Your task to perform on an android device: Open network settings Image 0: 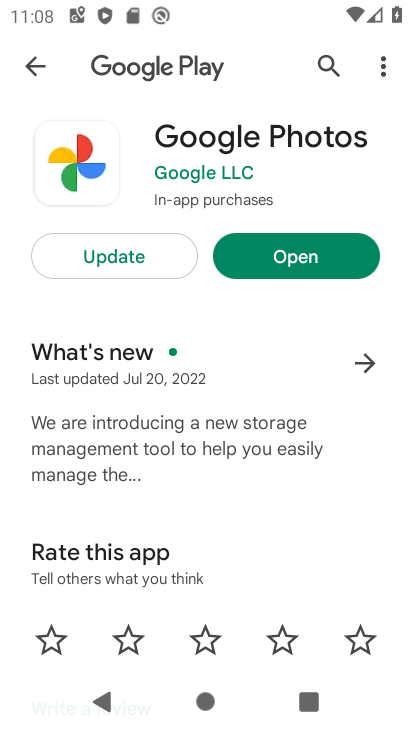
Step 0: press home button
Your task to perform on an android device: Open network settings Image 1: 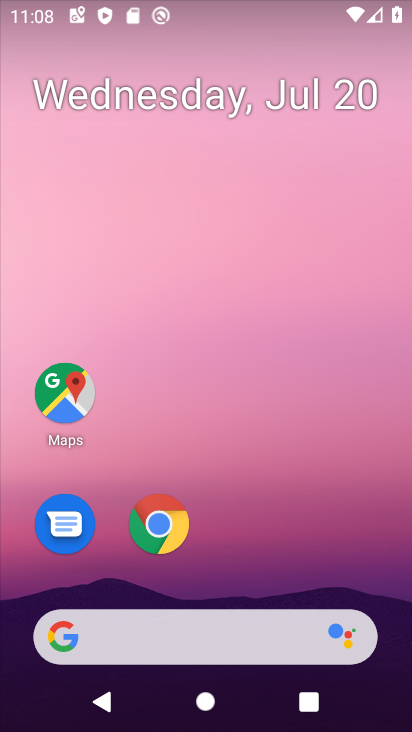
Step 1: drag from (266, 561) to (298, 3)
Your task to perform on an android device: Open network settings Image 2: 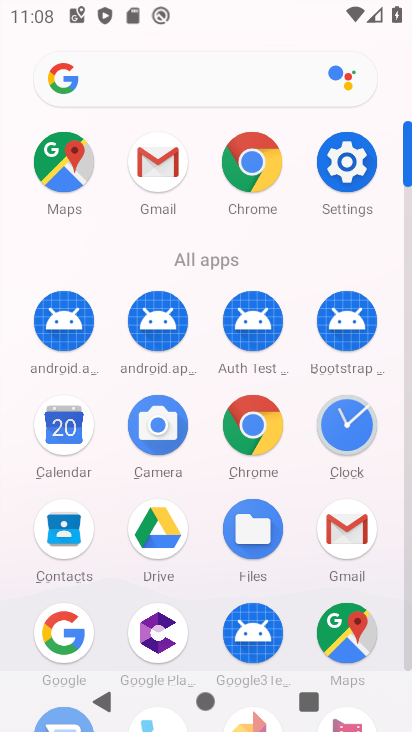
Step 2: click (341, 172)
Your task to perform on an android device: Open network settings Image 3: 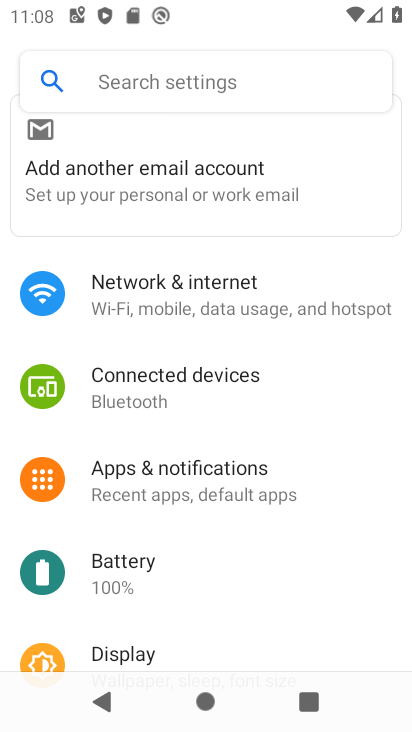
Step 3: click (240, 289)
Your task to perform on an android device: Open network settings Image 4: 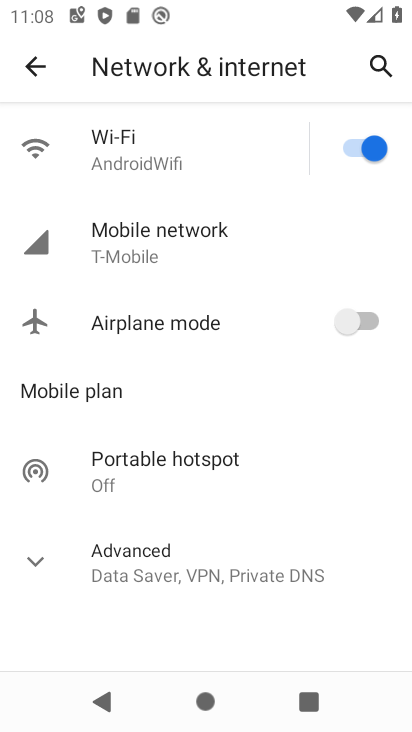
Step 4: task complete